Your task to perform on an android device: open app "Booking.com: Hotels and more" (install if not already installed) and go to login screen Image 0: 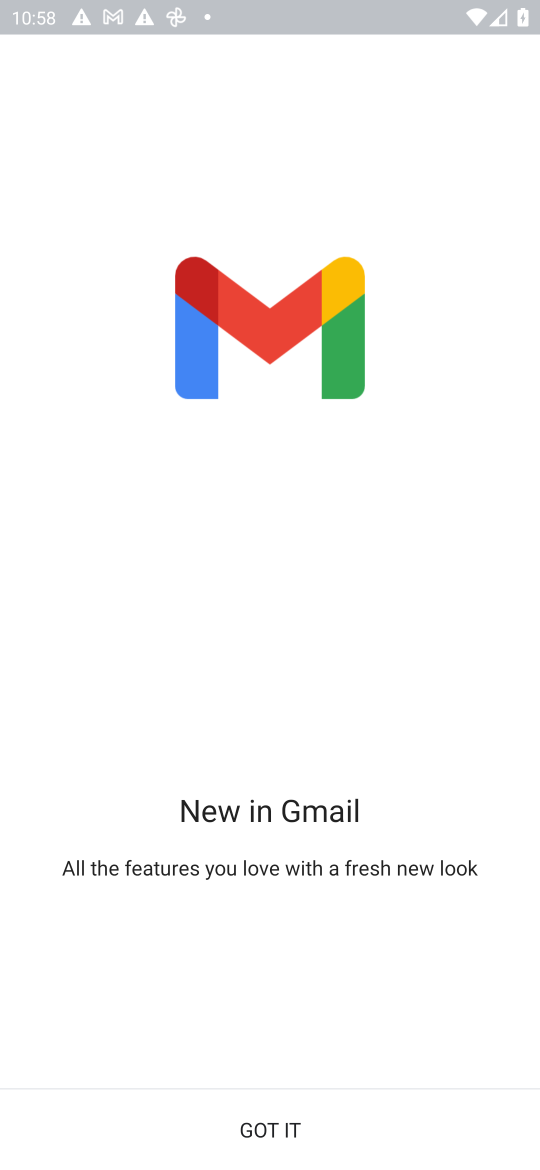
Step 0: press back button
Your task to perform on an android device: open app "Booking.com: Hotels and more" (install if not already installed) and go to login screen Image 1: 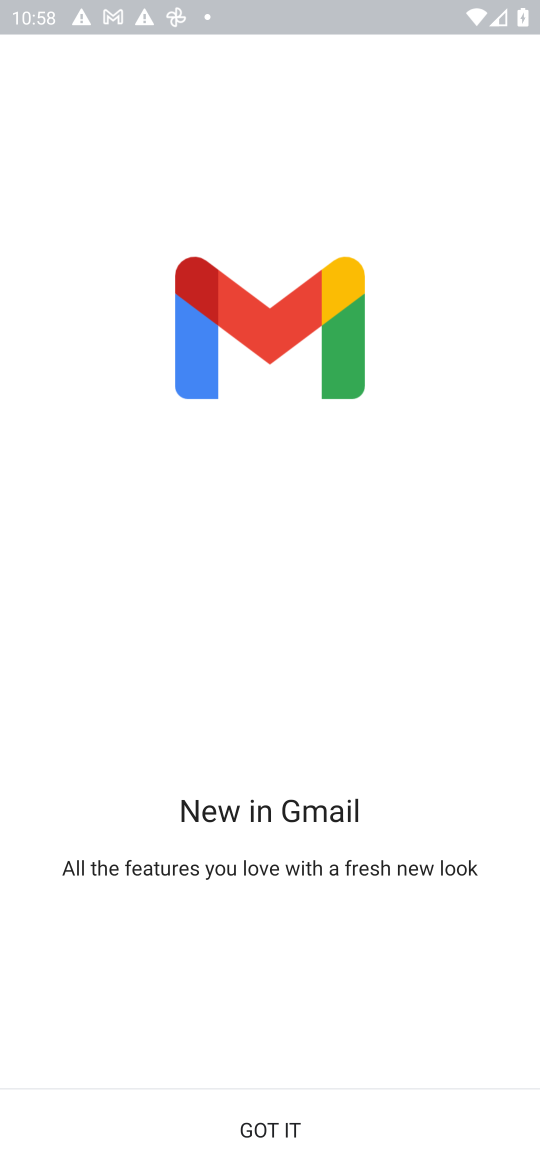
Step 1: press home button
Your task to perform on an android device: open app "Booking.com: Hotels and more" (install if not already installed) and go to login screen Image 2: 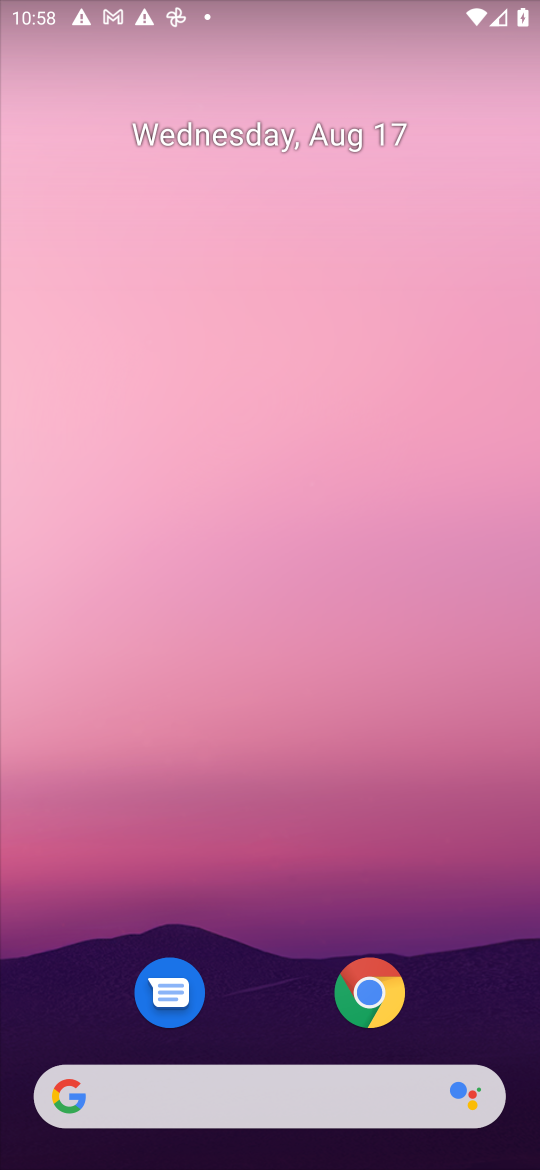
Step 2: drag from (490, 1005) to (185, 82)
Your task to perform on an android device: open app "Booking.com: Hotels and more" (install if not already installed) and go to login screen Image 3: 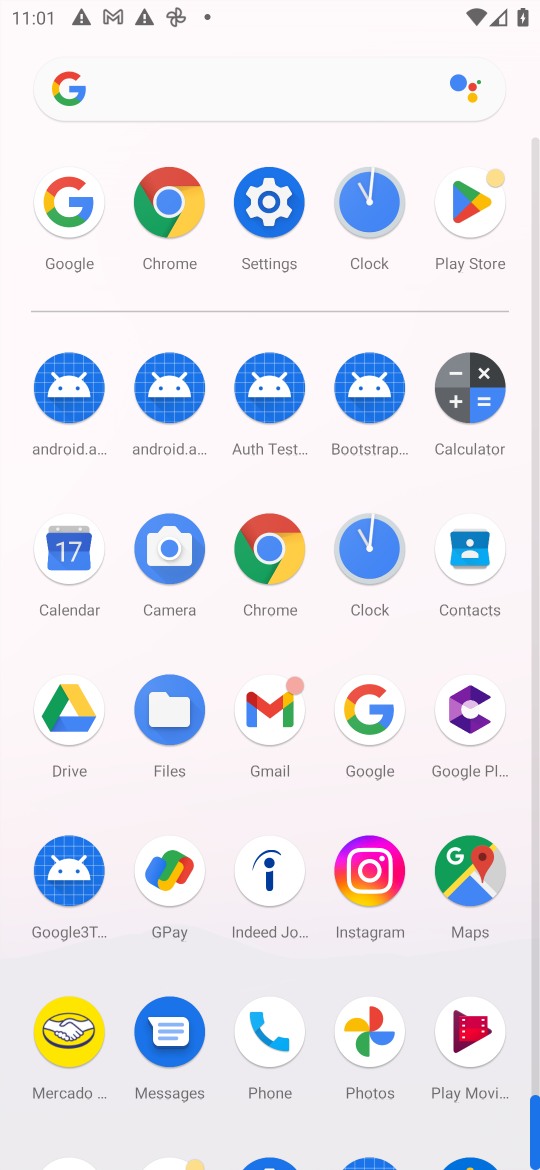
Step 3: click (459, 204)
Your task to perform on an android device: open app "Booking.com: Hotels and more" (install if not already installed) and go to login screen Image 4: 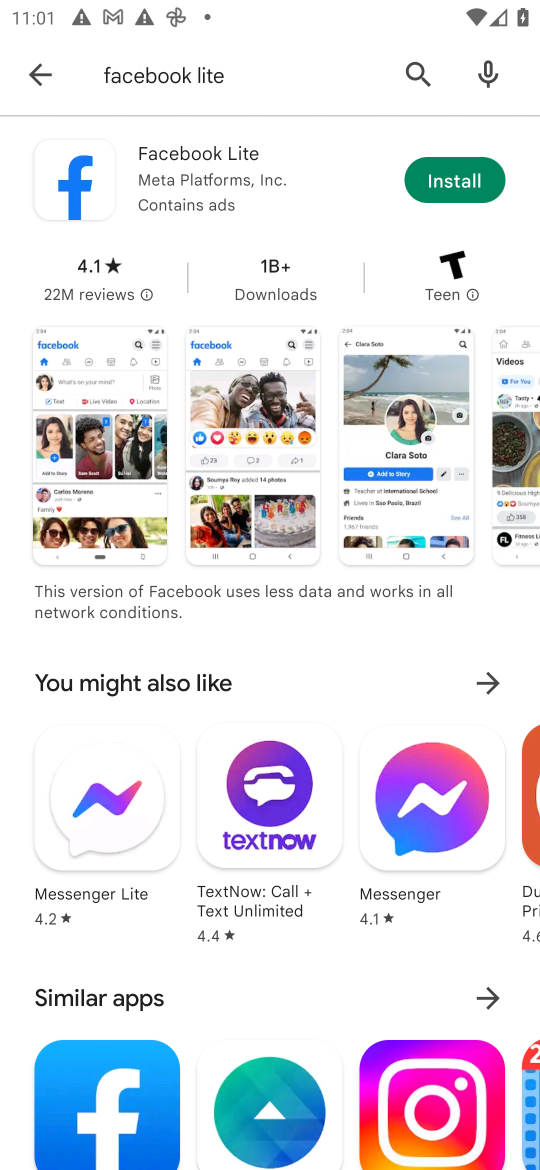
Step 4: press back button
Your task to perform on an android device: open app "Booking.com: Hotels and more" (install if not already installed) and go to login screen Image 5: 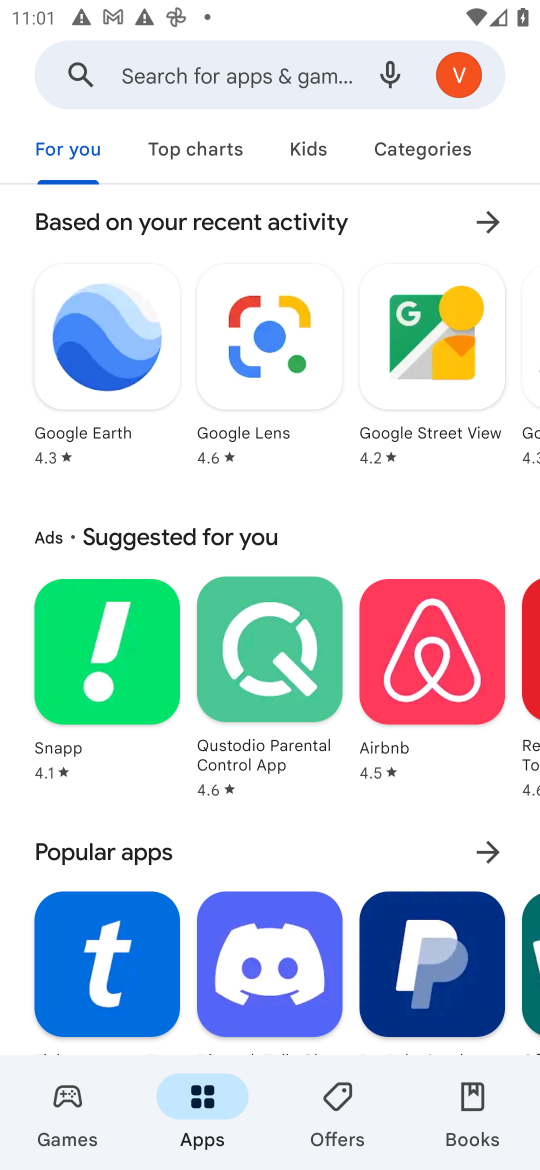
Step 5: click (145, 65)
Your task to perform on an android device: open app "Booking.com: Hotels and more" (install if not already installed) and go to login screen Image 6: 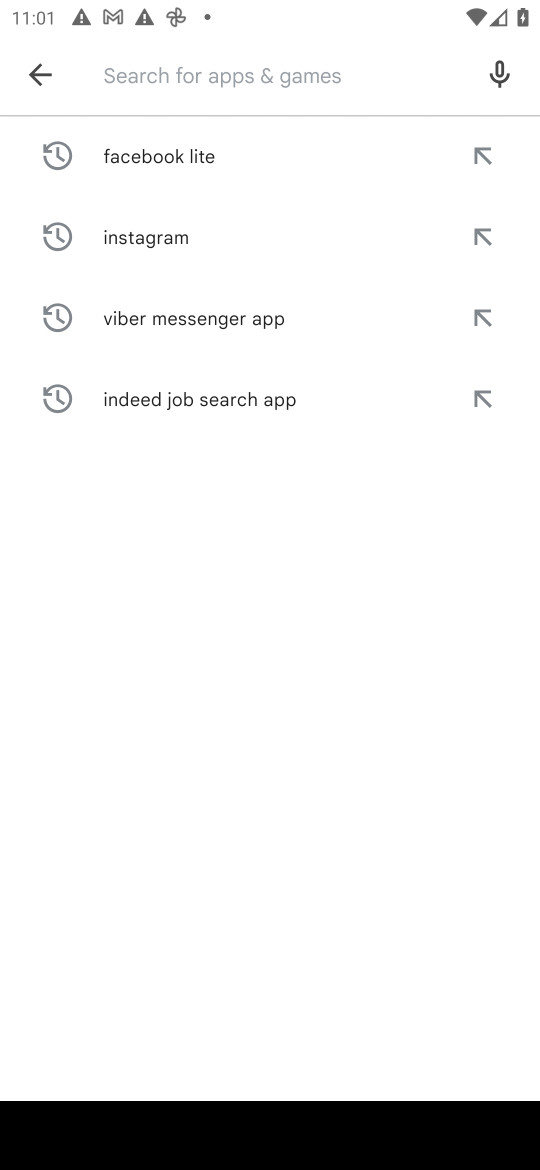
Step 6: type "Booking.com: Hotels and more"
Your task to perform on an android device: open app "Booking.com: Hotels and more" (install if not already installed) and go to login screen Image 7: 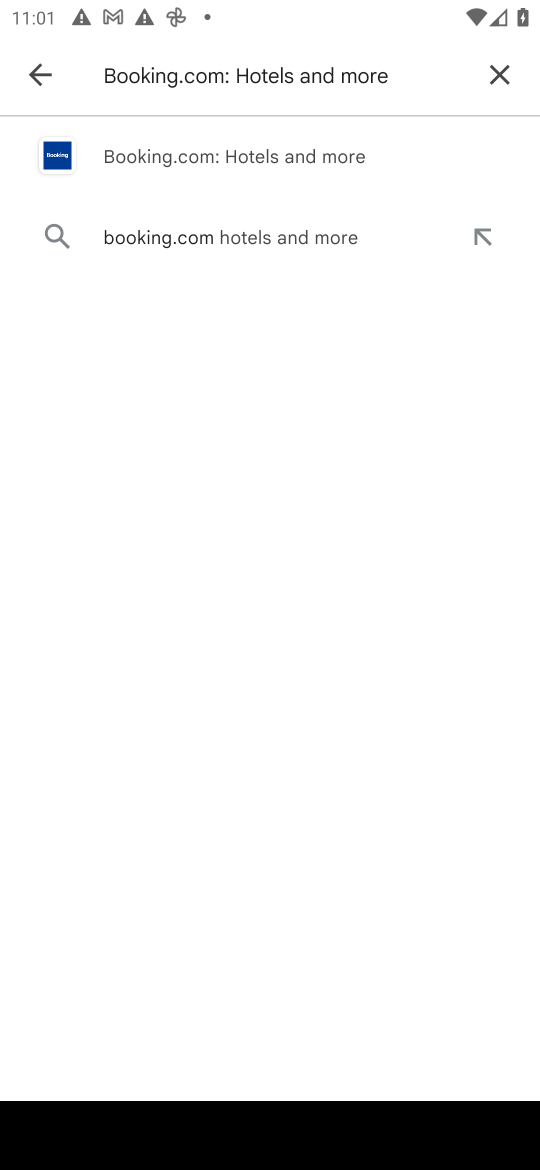
Step 7: click (198, 156)
Your task to perform on an android device: open app "Booking.com: Hotels and more" (install if not already installed) and go to login screen Image 8: 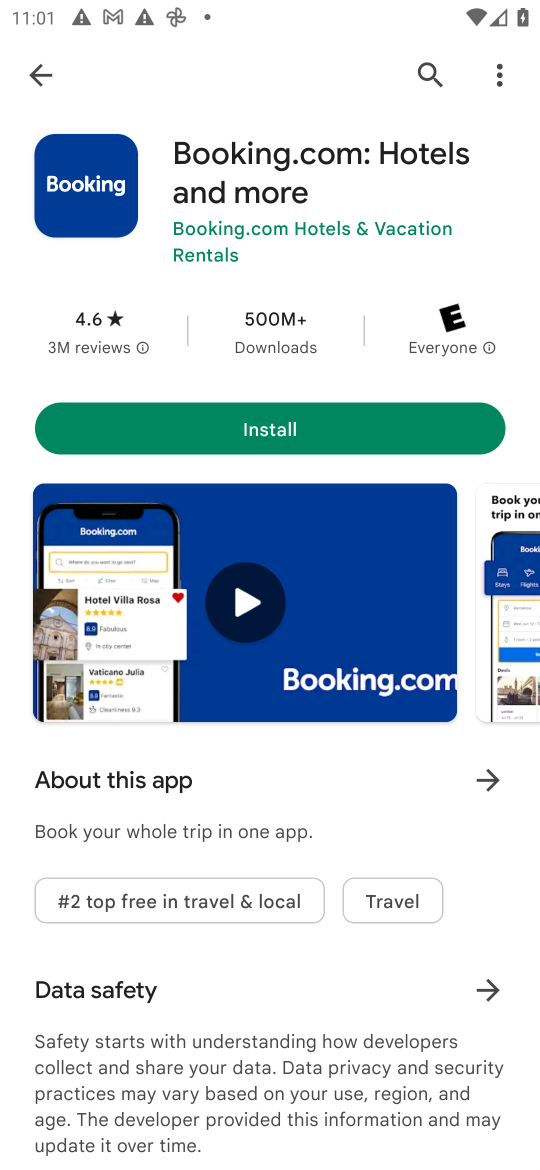
Step 8: task complete